Your task to perform on an android device: turn off picture-in-picture Image 0: 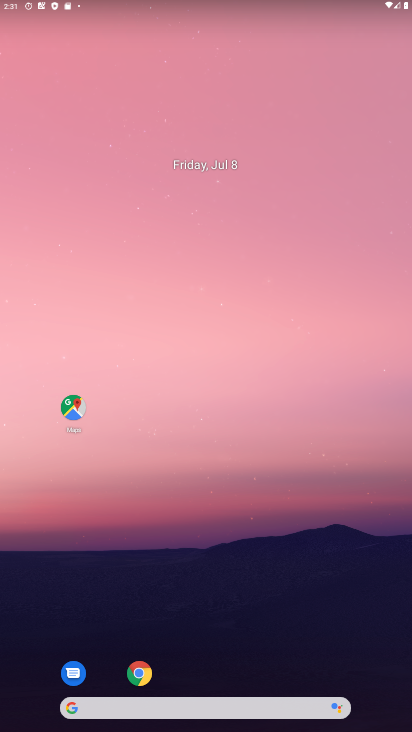
Step 0: click (139, 672)
Your task to perform on an android device: turn off picture-in-picture Image 1: 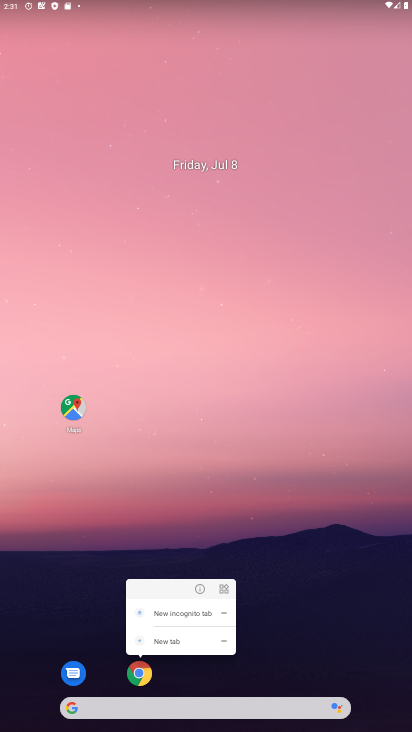
Step 1: click (203, 585)
Your task to perform on an android device: turn off picture-in-picture Image 2: 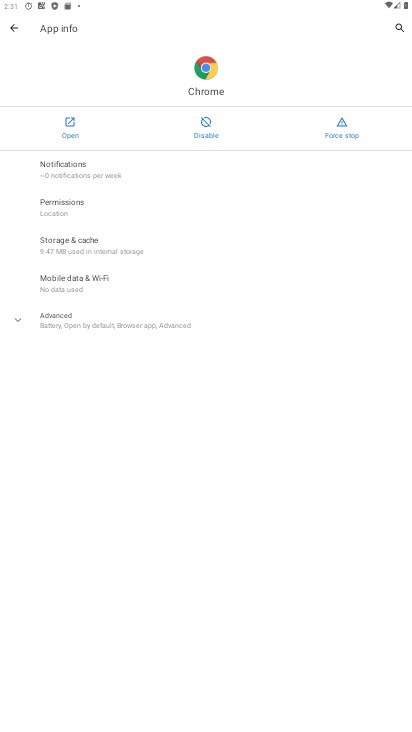
Step 2: click (110, 314)
Your task to perform on an android device: turn off picture-in-picture Image 3: 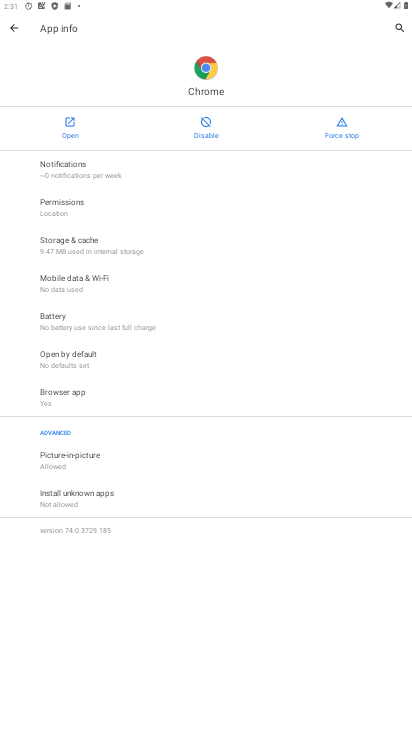
Step 3: click (79, 455)
Your task to perform on an android device: turn off picture-in-picture Image 4: 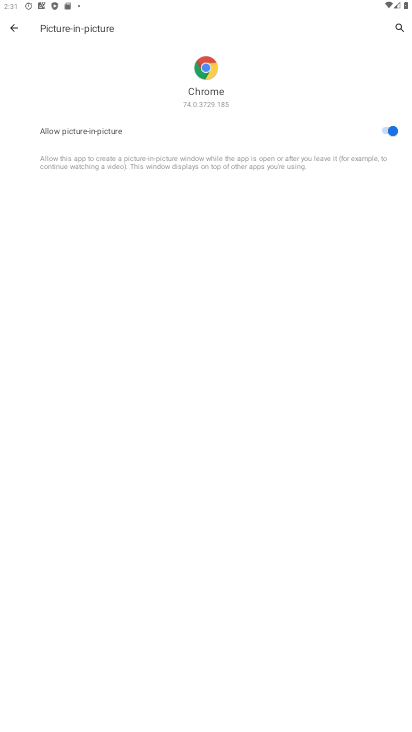
Step 4: click (390, 128)
Your task to perform on an android device: turn off picture-in-picture Image 5: 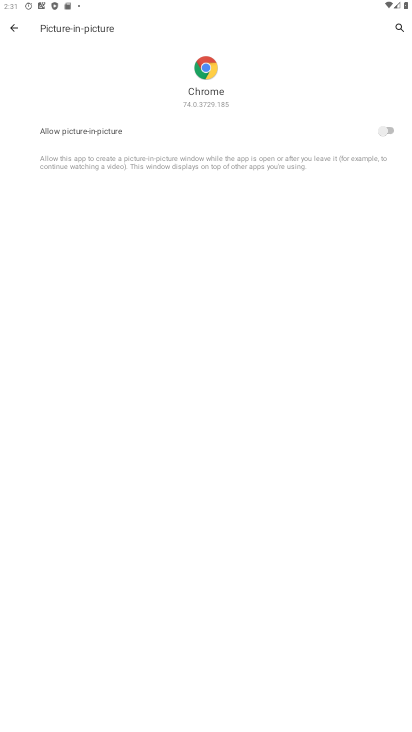
Step 5: task complete